Your task to perform on an android device: What's the weather today? Image 0: 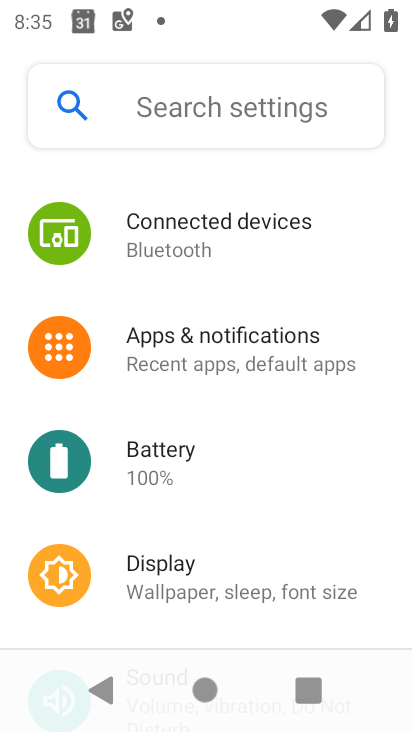
Step 0: press home button
Your task to perform on an android device: What's the weather today? Image 1: 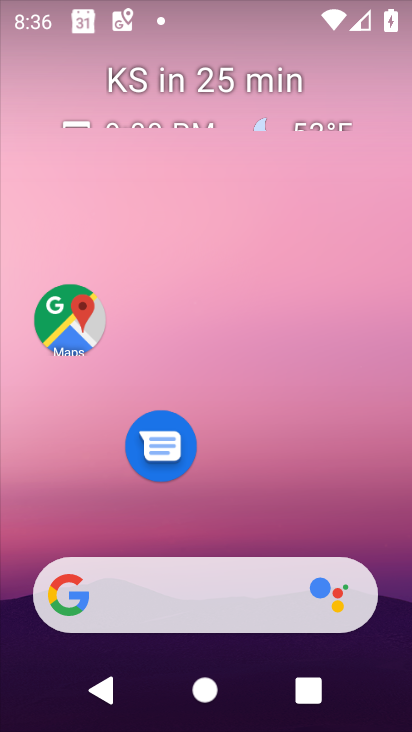
Step 1: click (205, 575)
Your task to perform on an android device: What's the weather today? Image 2: 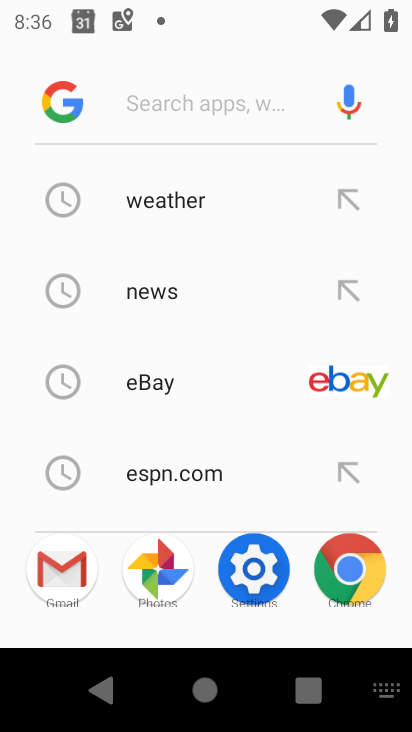
Step 2: click (158, 199)
Your task to perform on an android device: What's the weather today? Image 3: 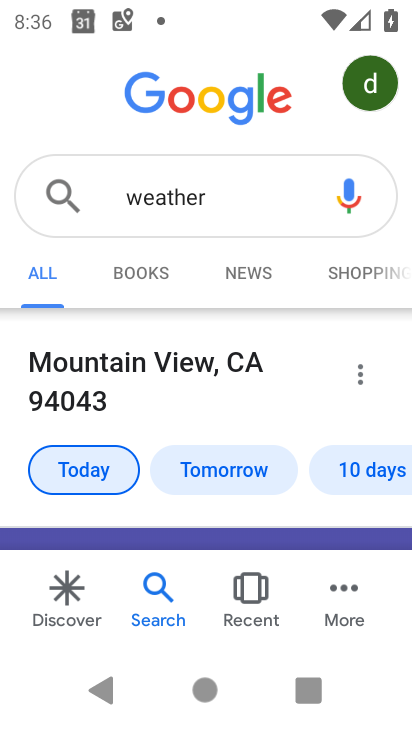
Step 3: drag from (207, 480) to (165, 146)
Your task to perform on an android device: What's the weather today? Image 4: 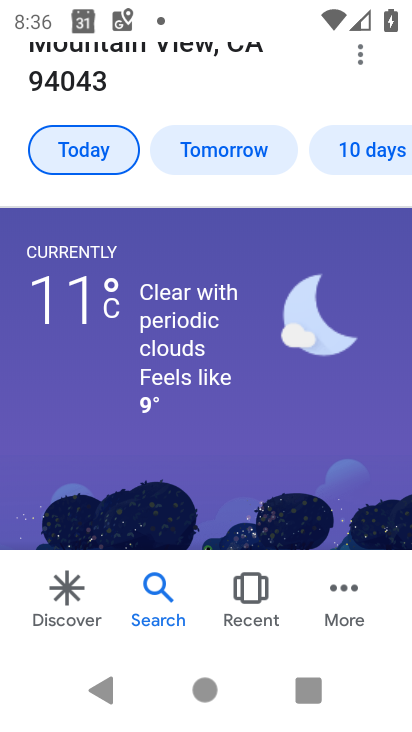
Step 4: click (78, 164)
Your task to perform on an android device: What's the weather today? Image 5: 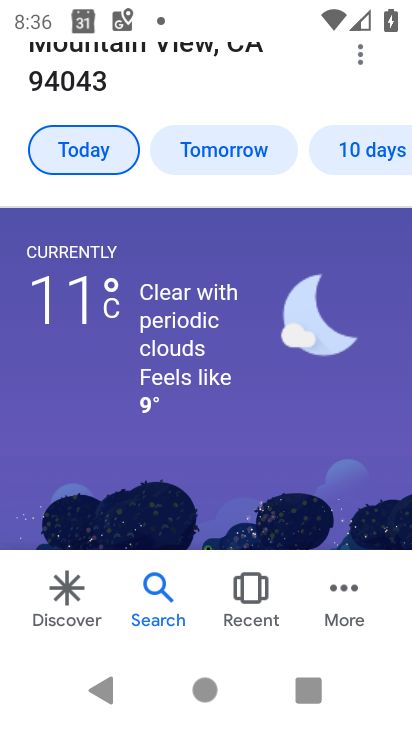
Step 5: task complete